Your task to perform on an android device: Open Yahoo.com Image 0: 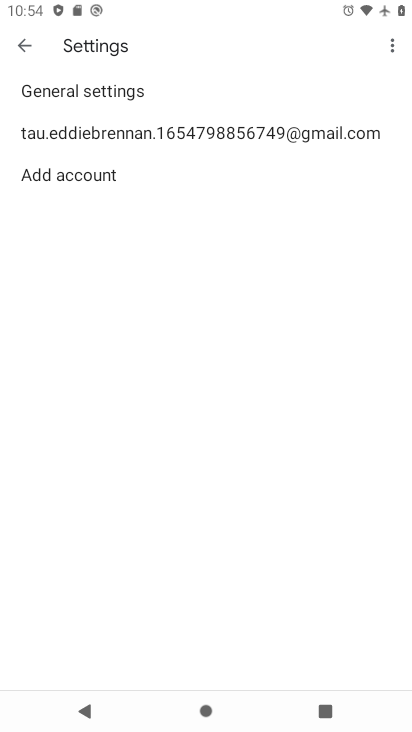
Step 0: press home button
Your task to perform on an android device: Open Yahoo.com Image 1: 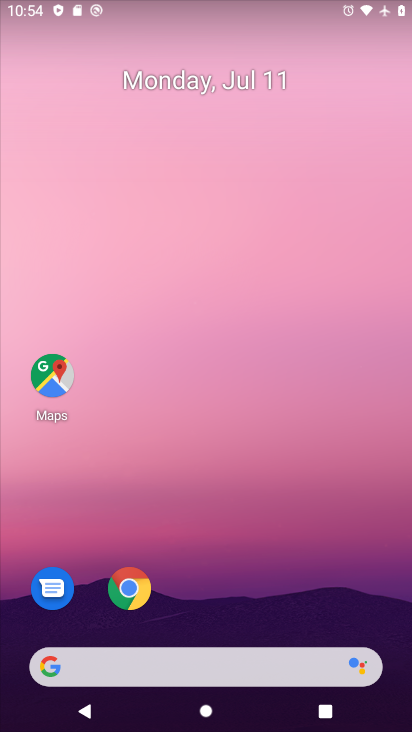
Step 1: click (134, 590)
Your task to perform on an android device: Open Yahoo.com Image 2: 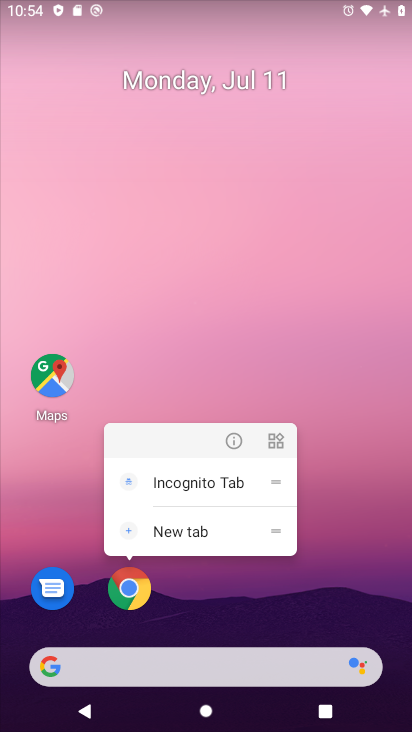
Step 2: click (139, 585)
Your task to perform on an android device: Open Yahoo.com Image 3: 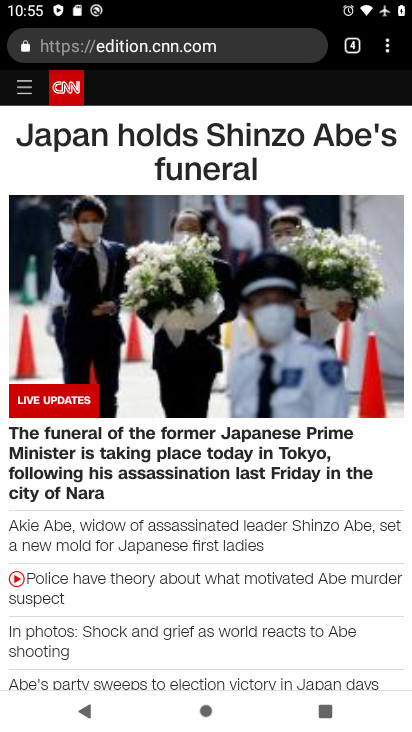
Step 3: drag from (380, 50) to (299, 97)
Your task to perform on an android device: Open Yahoo.com Image 4: 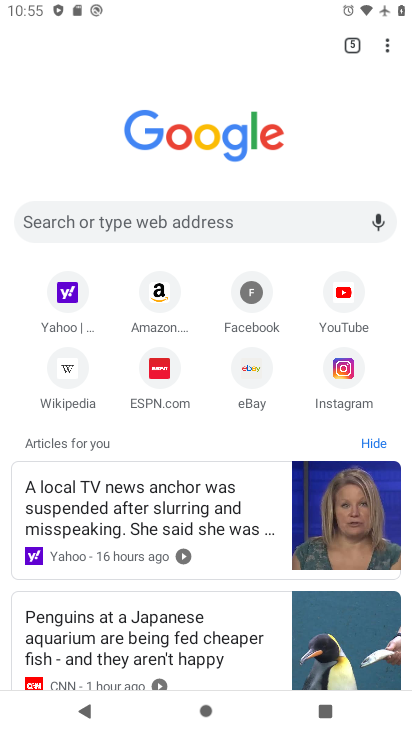
Step 4: click (64, 299)
Your task to perform on an android device: Open Yahoo.com Image 5: 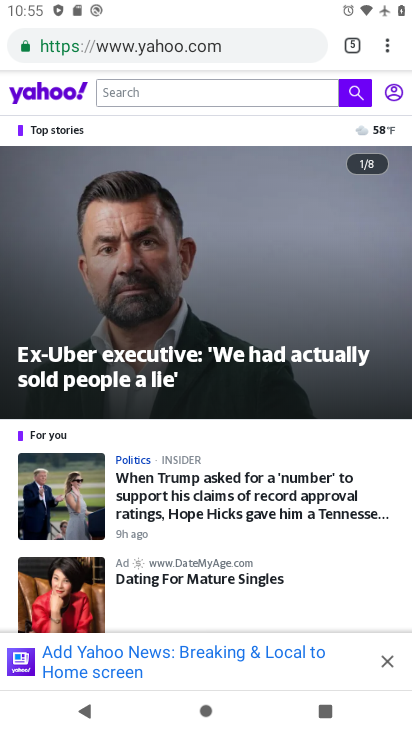
Step 5: task complete